Your task to perform on an android device: Go to sound settings Image 0: 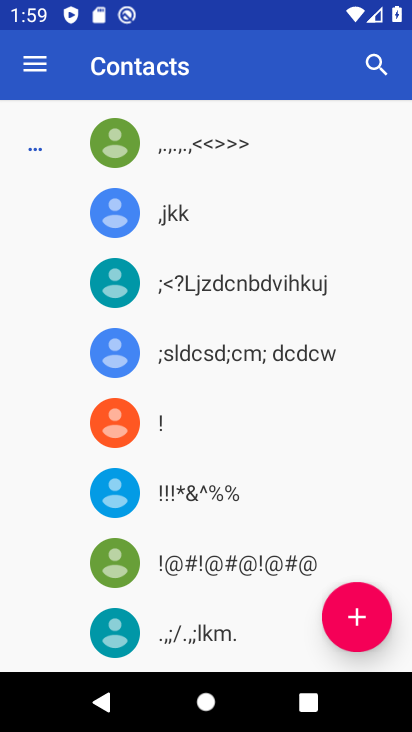
Step 0: press home button
Your task to perform on an android device: Go to sound settings Image 1: 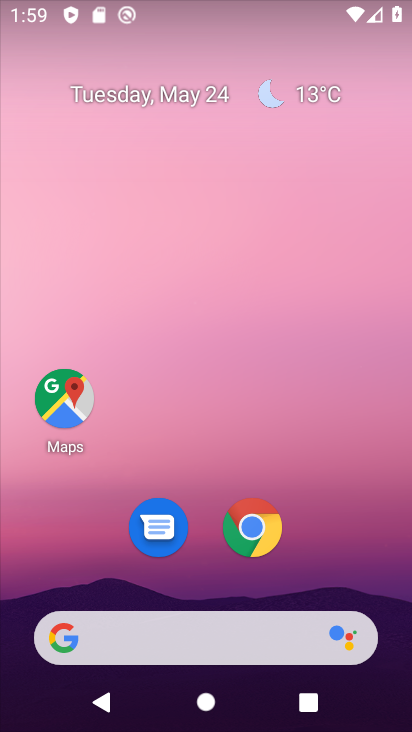
Step 1: drag from (333, 506) to (263, 71)
Your task to perform on an android device: Go to sound settings Image 2: 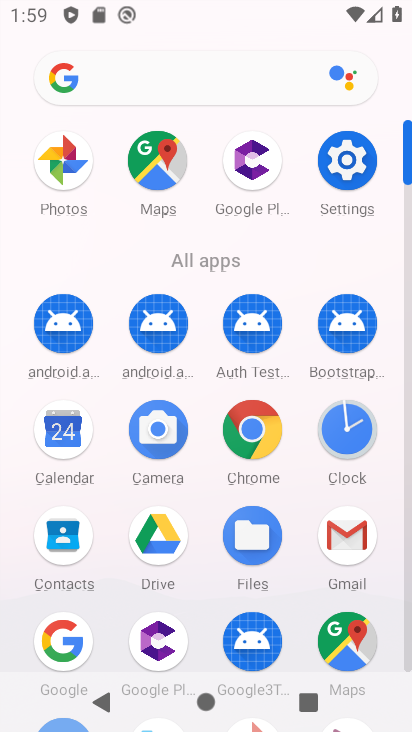
Step 2: click (361, 169)
Your task to perform on an android device: Go to sound settings Image 3: 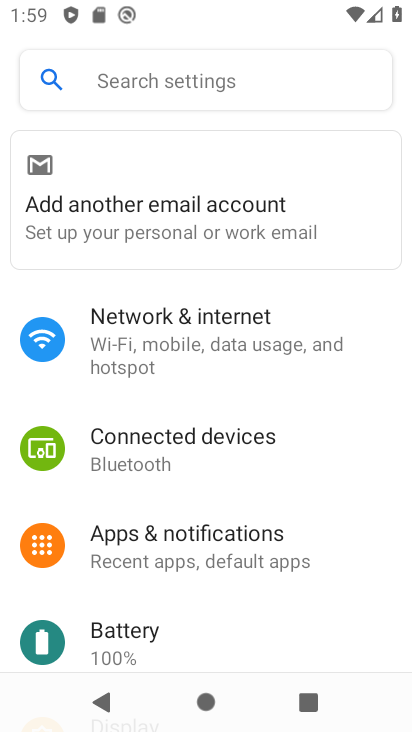
Step 3: drag from (189, 581) to (163, 287)
Your task to perform on an android device: Go to sound settings Image 4: 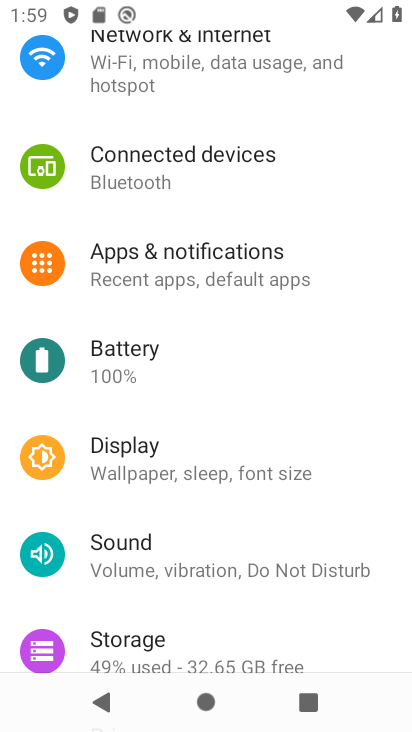
Step 4: click (216, 586)
Your task to perform on an android device: Go to sound settings Image 5: 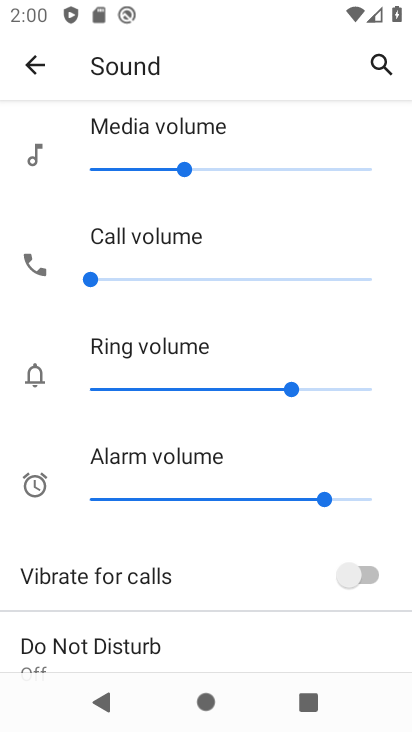
Step 5: task complete